Your task to perform on an android device: see creations saved in the google photos Image 0: 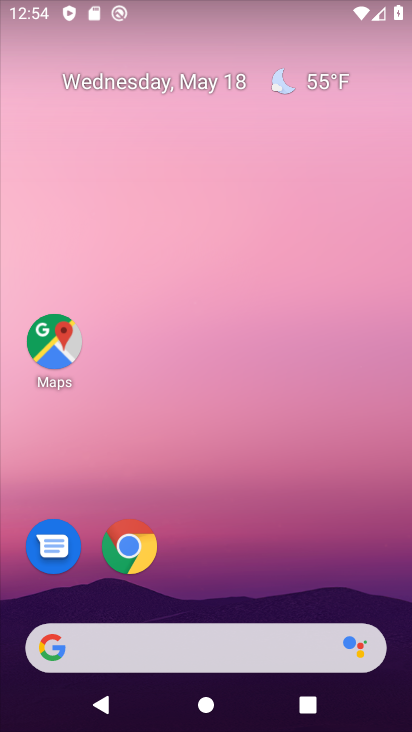
Step 0: drag from (355, 541) to (360, 106)
Your task to perform on an android device: see creations saved in the google photos Image 1: 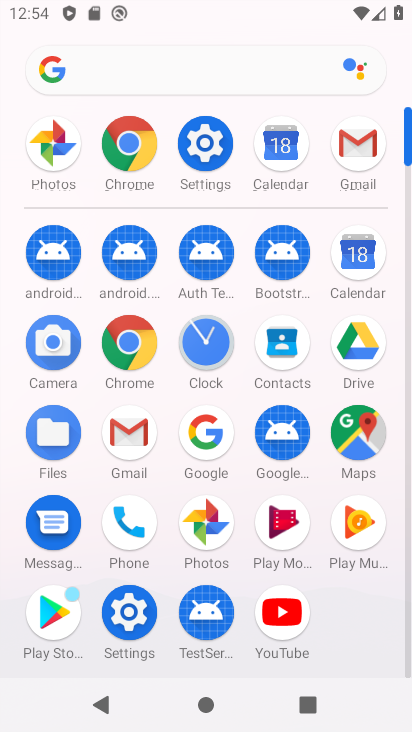
Step 1: click (208, 535)
Your task to perform on an android device: see creations saved in the google photos Image 2: 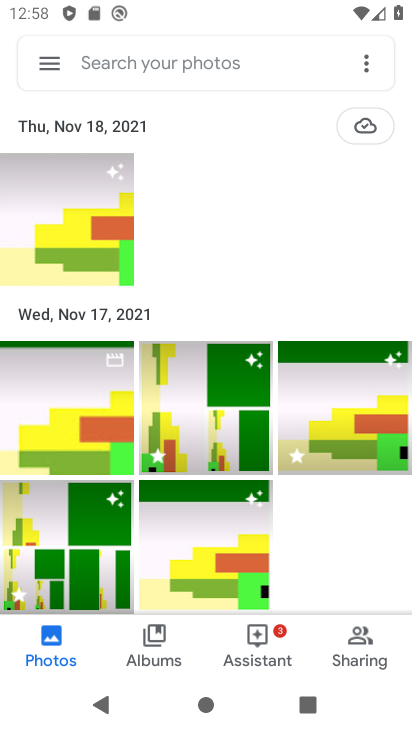
Step 2: click (203, 59)
Your task to perform on an android device: see creations saved in the google photos Image 3: 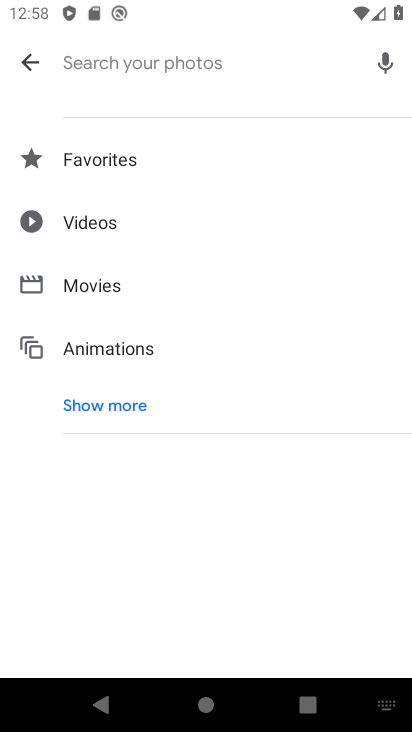
Step 3: type "creations "
Your task to perform on an android device: see creations saved in the google photos Image 4: 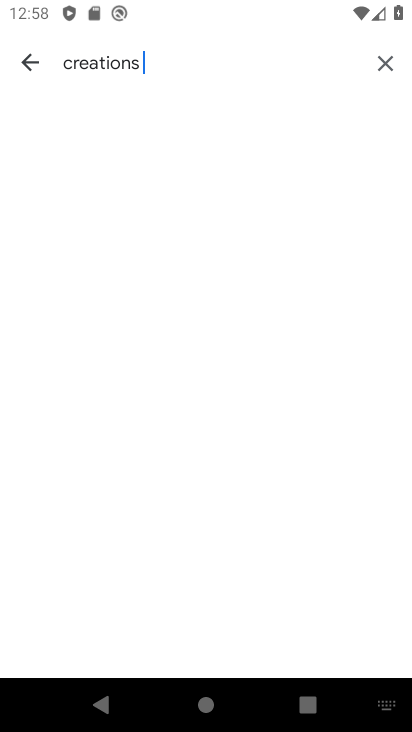
Step 4: task complete